Your task to perform on an android device: Go to display settings Image 0: 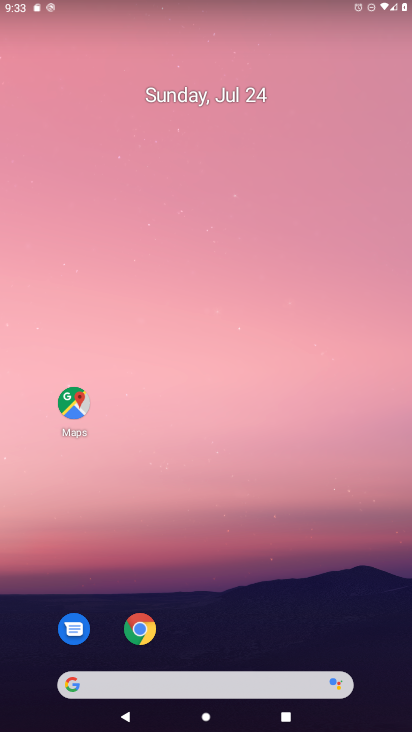
Step 0: drag from (368, 663) to (248, 24)
Your task to perform on an android device: Go to display settings Image 1: 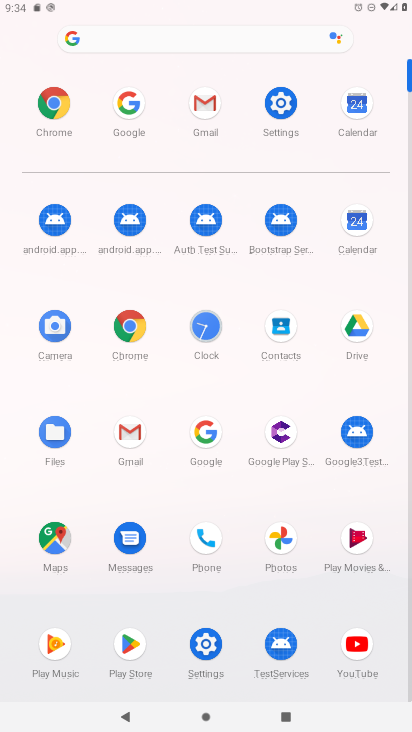
Step 1: click (203, 635)
Your task to perform on an android device: Go to display settings Image 2: 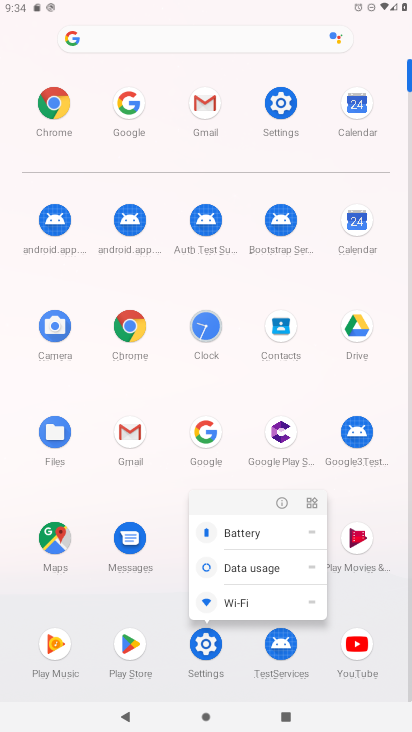
Step 2: click (208, 649)
Your task to perform on an android device: Go to display settings Image 3: 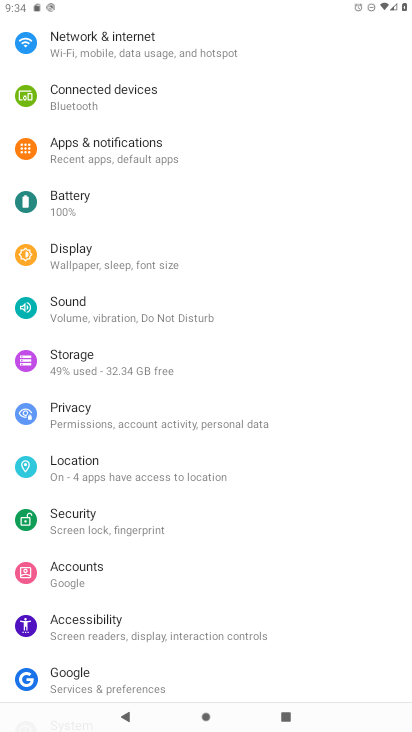
Step 3: click (73, 245)
Your task to perform on an android device: Go to display settings Image 4: 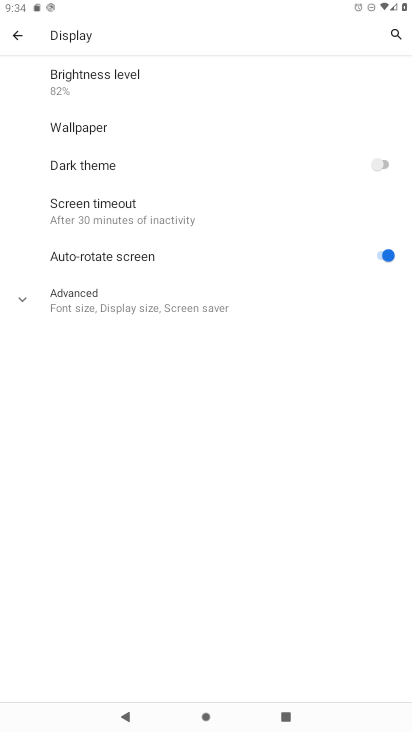
Step 4: task complete